Your task to perform on an android device: Open ESPN.com Image 0: 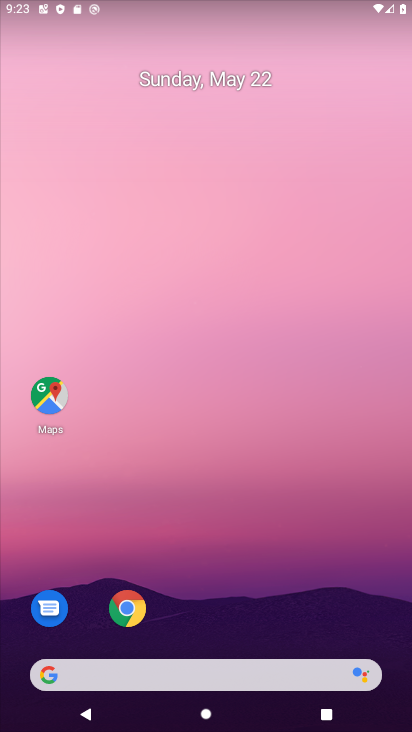
Step 0: click (133, 612)
Your task to perform on an android device: Open ESPN.com Image 1: 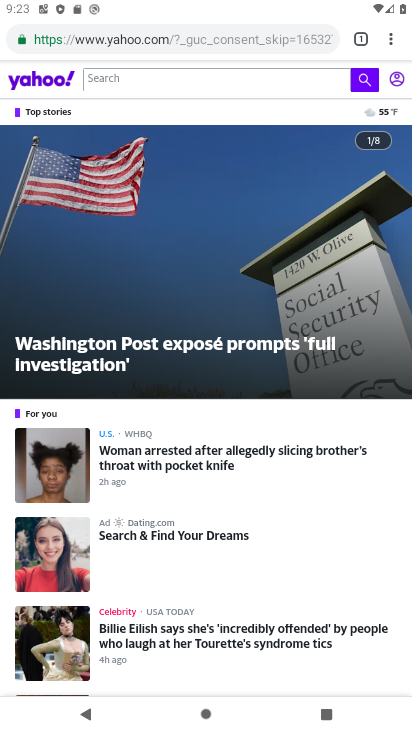
Step 1: click (245, 31)
Your task to perform on an android device: Open ESPN.com Image 2: 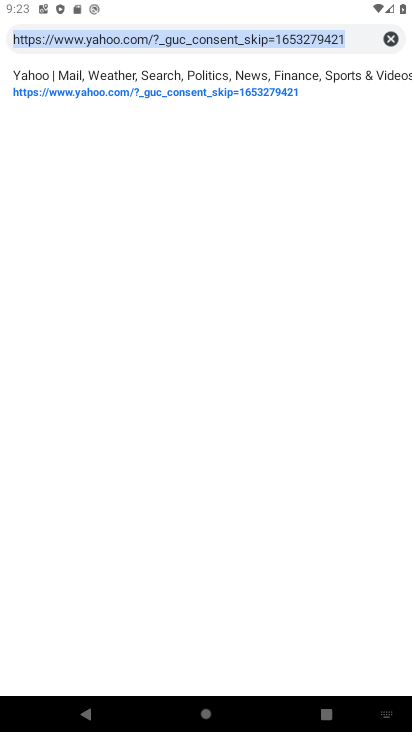
Step 2: type "espnc.om"
Your task to perform on an android device: Open ESPN.com Image 3: 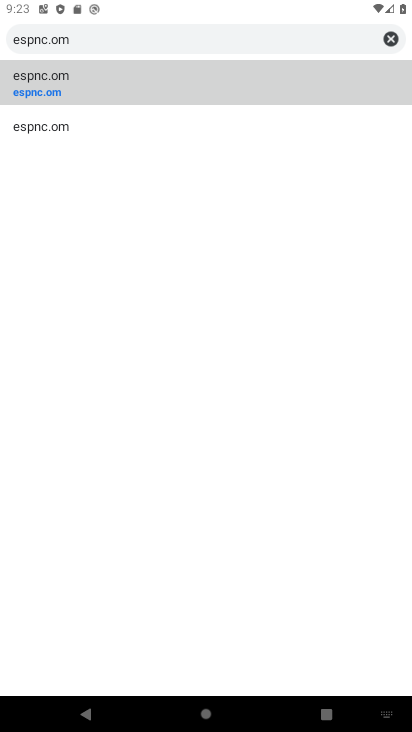
Step 3: type "espn.com"
Your task to perform on an android device: Open ESPN.com Image 4: 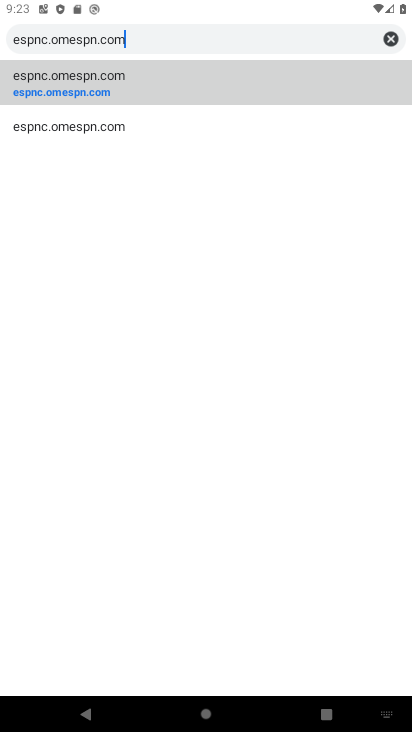
Step 4: click (388, 35)
Your task to perform on an android device: Open ESPN.com Image 5: 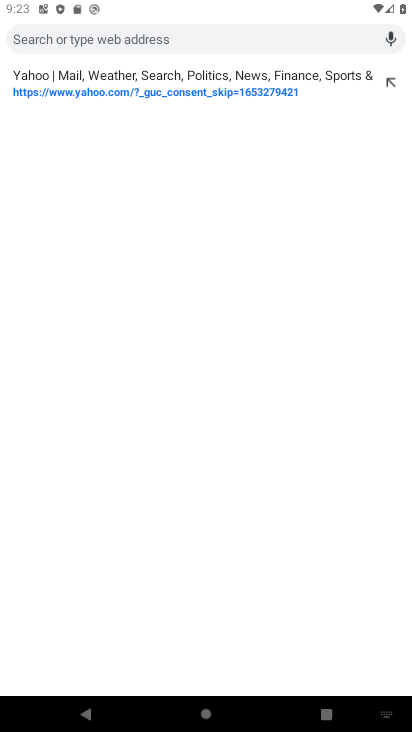
Step 5: type "espn.com"
Your task to perform on an android device: Open ESPN.com Image 6: 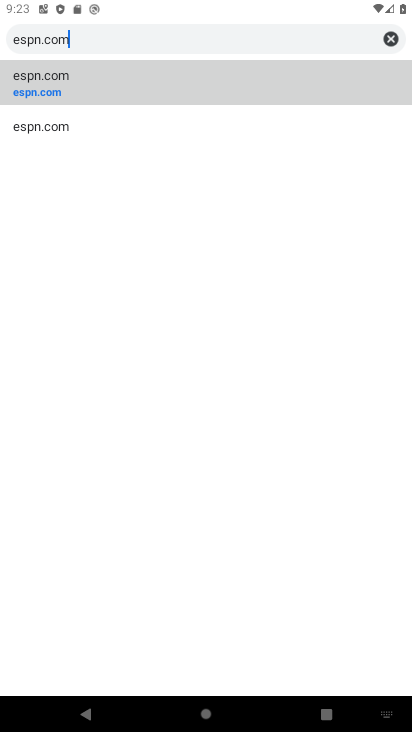
Step 6: click (49, 85)
Your task to perform on an android device: Open ESPN.com Image 7: 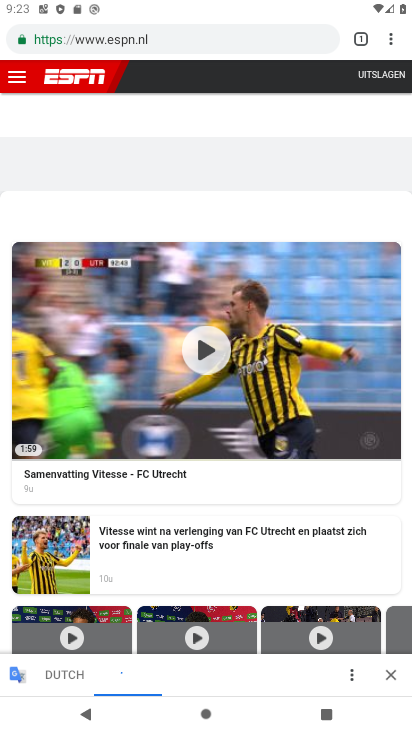
Step 7: task complete